Your task to perform on an android device: find photos in the google photos app Image 0: 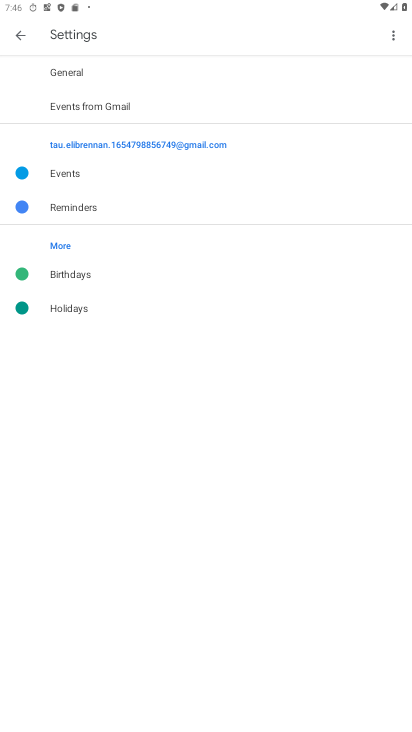
Step 0: press home button
Your task to perform on an android device: find photos in the google photos app Image 1: 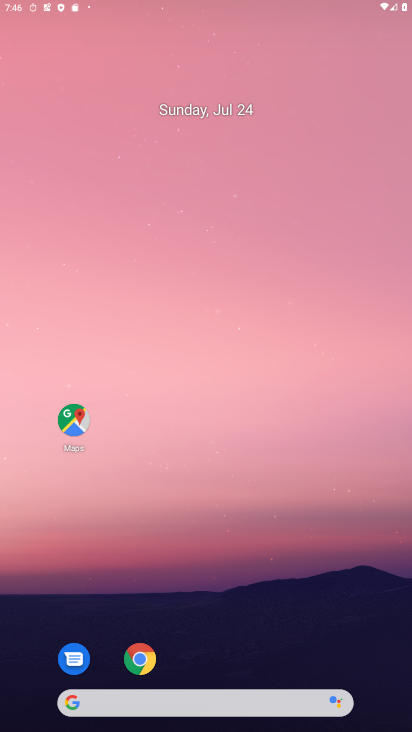
Step 1: drag from (310, 605) to (241, 27)
Your task to perform on an android device: find photos in the google photos app Image 2: 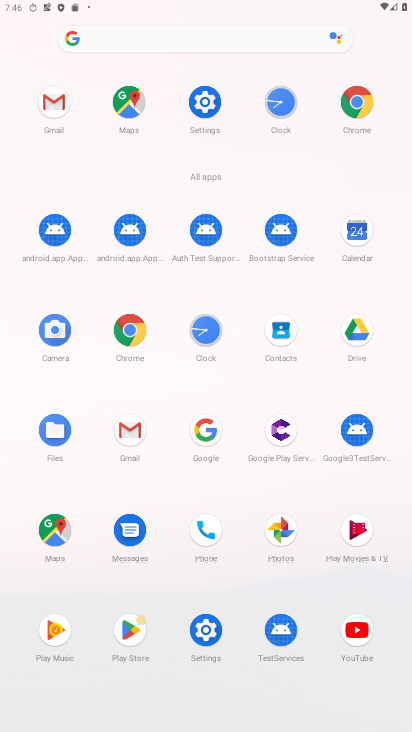
Step 2: click (289, 531)
Your task to perform on an android device: find photos in the google photos app Image 3: 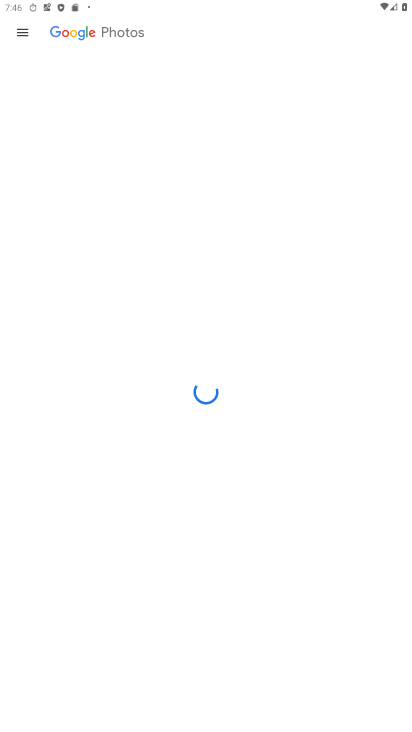
Step 3: drag from (97, 450) to (1, 72)
Your task to perform on an android device: find photos in the google photos app Image 4: 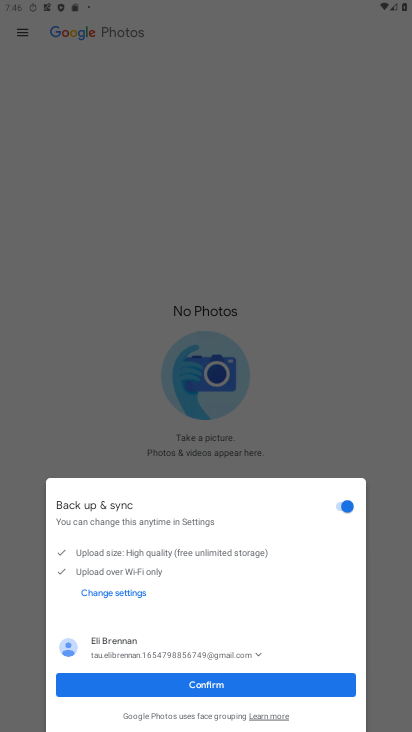
Step 4: click (259, 686)
Your task to perform on an android device: find photos in the google photos app Image 5: 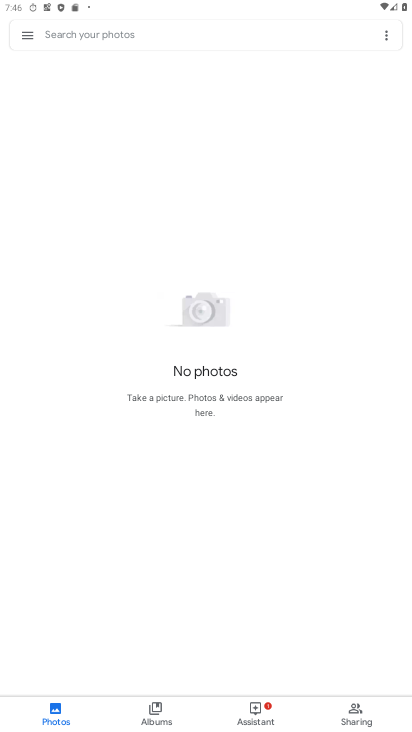
Step 5: task complete